Your task to perform on an android device: turn off wifi Image 0: 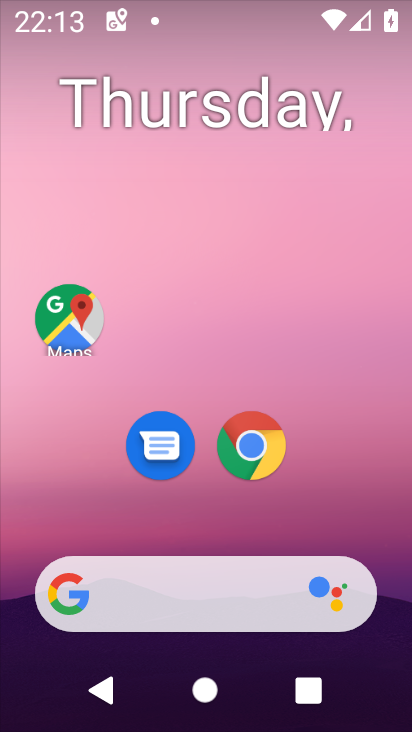
Step 0: drag from (235, 503) to (262, 162)
Your task to perform on an android device: turn off wifi Image 1: 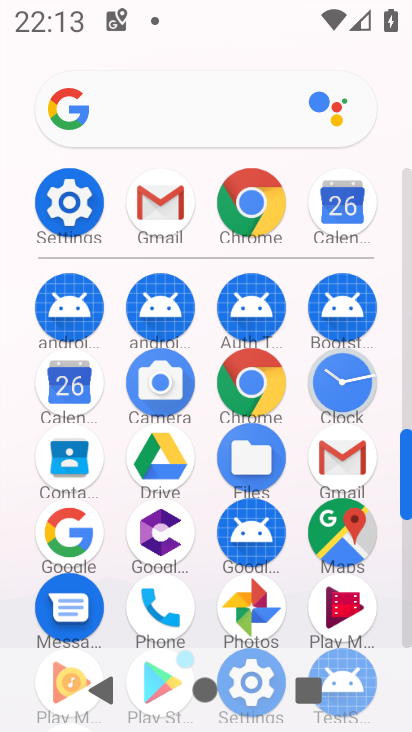
Step 1: click (79, 227)
Your task to perform on an android device: turn off wifi Image 2: 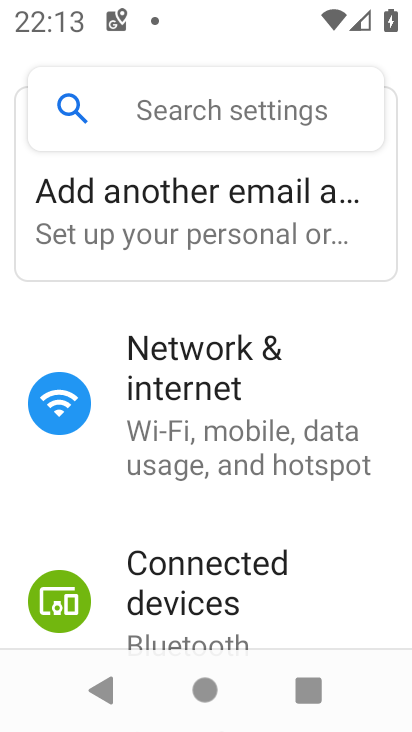
Step 2: click (236, 406)
Your task to perform on an android device: turn off wifi Image 3: 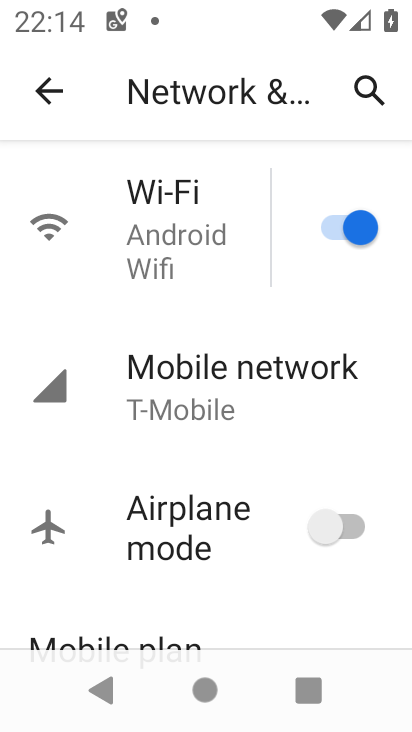
Step 3: click (359, 236)
Your task to perform on an android device: turn off wifi Image 4: 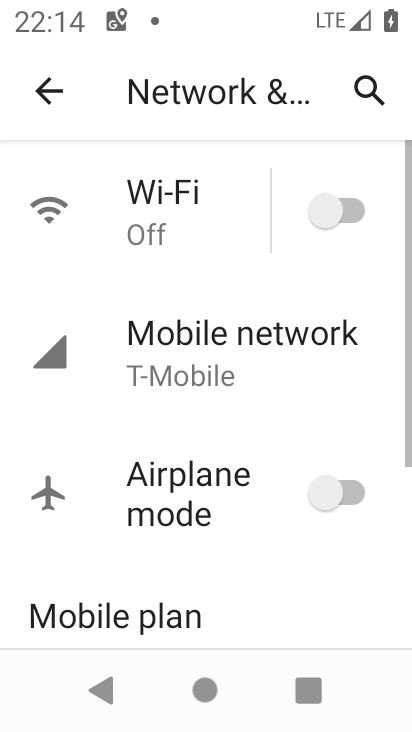
Step 4: task complete